Your task to perform on an android device: see sites visited before in the chrome app Image 0: 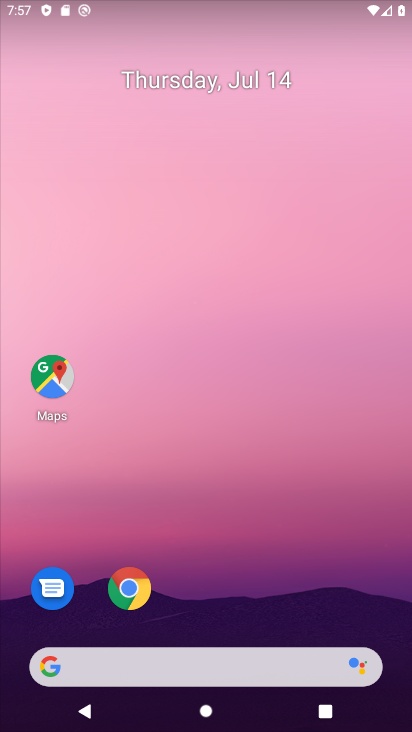
Step 0: drag from (222, 598) to (326, 29)
Your task to perform on an android device: see sites visited before in the chrome app Image 1: 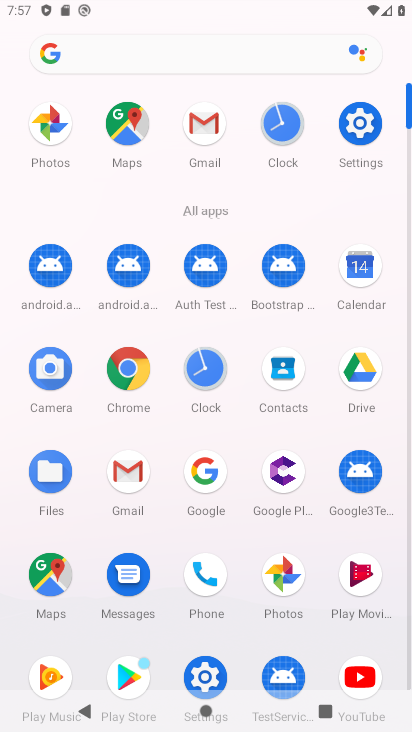
Step 1: click (125, 359)
Your task to perform on an android device: see sites visited before in the chrome app Image 2: 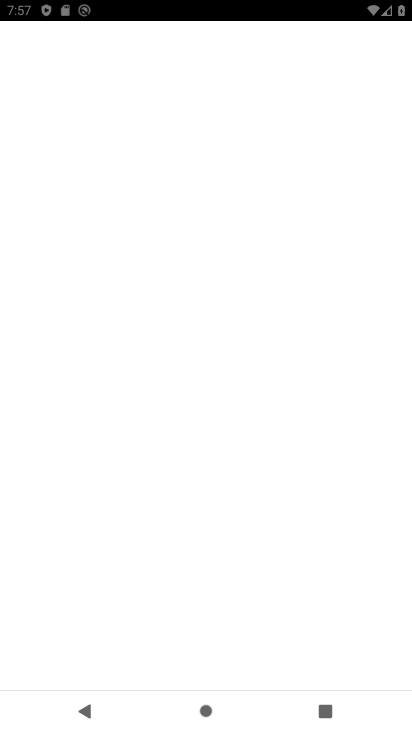
Step 2: click (130, 359)
Your task to perform on an android device: see sites visited before in the chrome app Image 3: 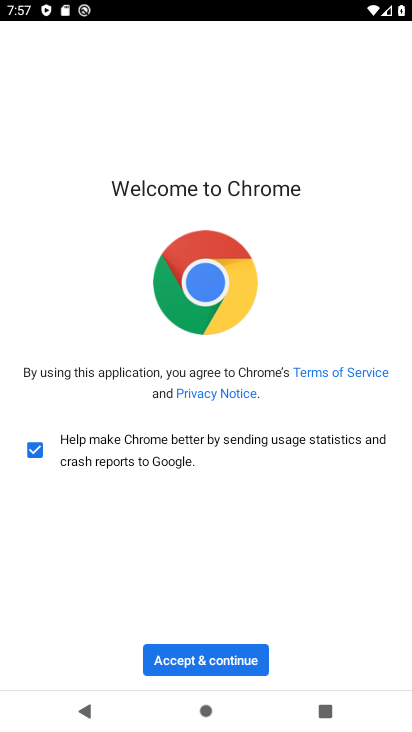
Step 3: click (215, 668)
Your task to perform on an android device: see sites visited before in the chrome app Image 4: 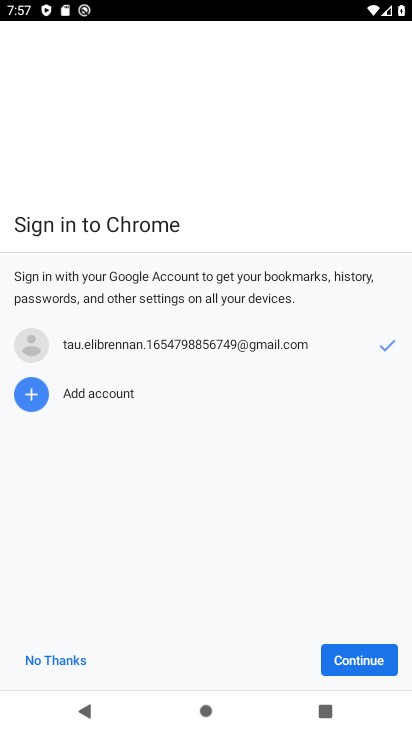
Step 4: click (361, 648)
Your task to perform on an android device: see sites visited before in the chrome app Image 5: 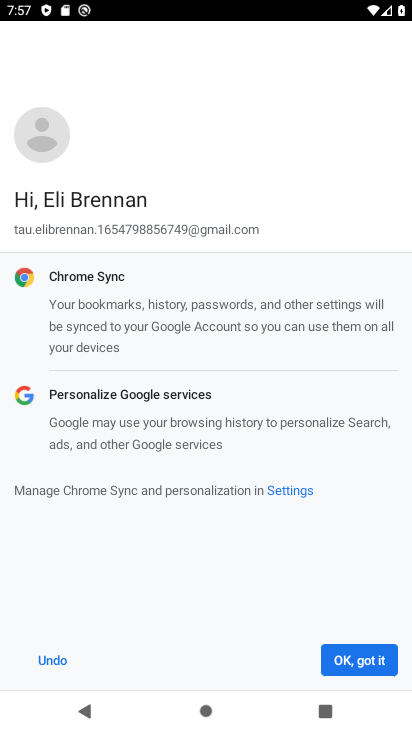
Step 5: click (364, 661)
Your task to perform on an android device: see sites visited before in the chrome app Image 6: 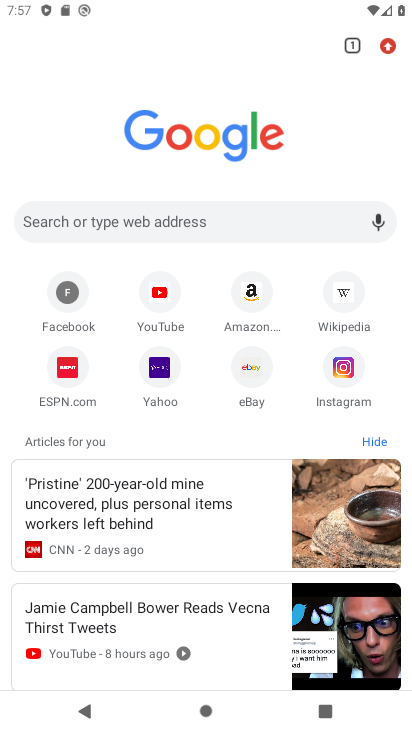
Step 6: click (383, 38)
Your task to perform on an android device: see sites visited before in the chrome app Image 7: 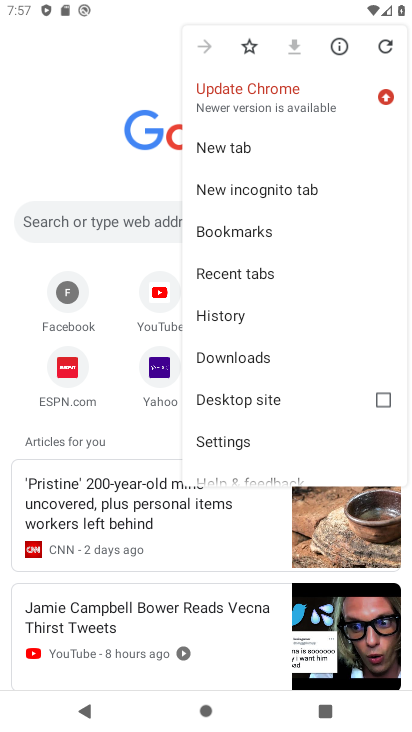
Step 7: click (236, 311)
Your task to perform on an android device: see sites visited before in the chrome app Image 8: 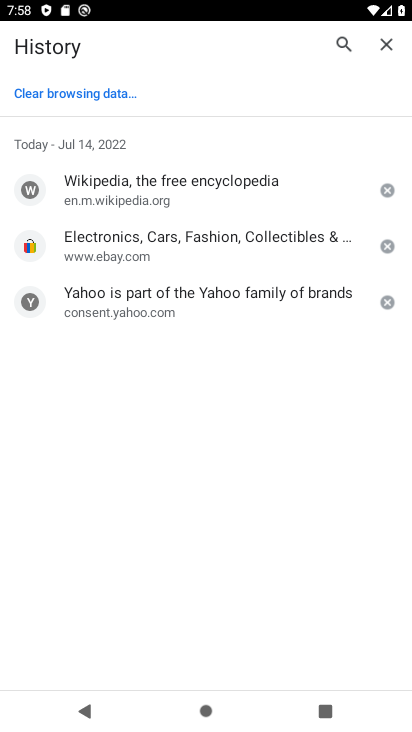
Step 8: task complete